Your task to perform on an android device: toggle priority inbox in the gmail app Image 0: 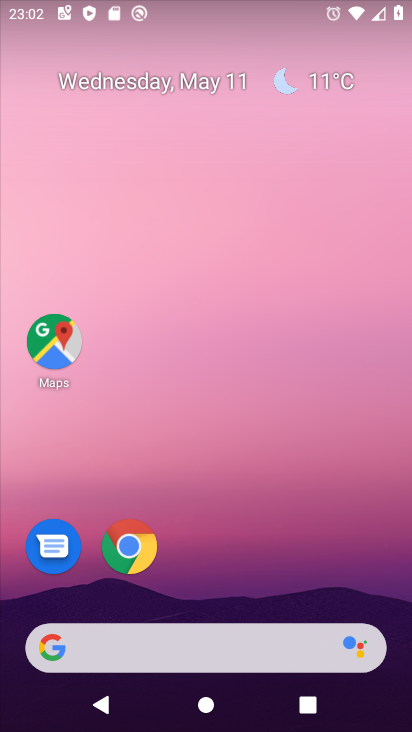
Step 0: drag from (401, 637) to (256, 154)
Your task to perform on an android device: toggle priority inbox in the gmail app Image 1: 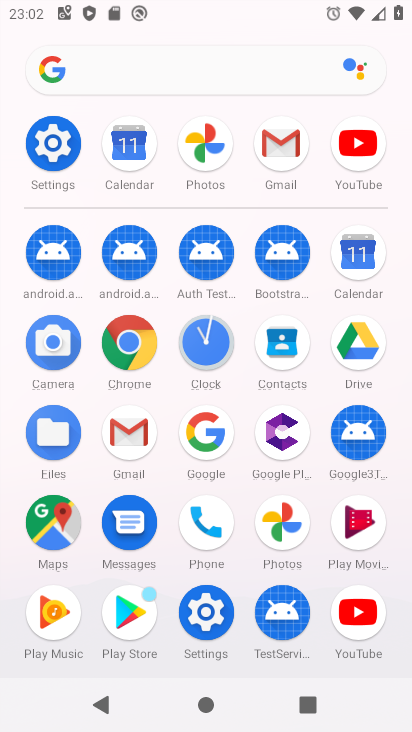
Step 1: click (127, 430)
Your task to perform on an android device: toggle priority inbox in the gmail app Image 2: 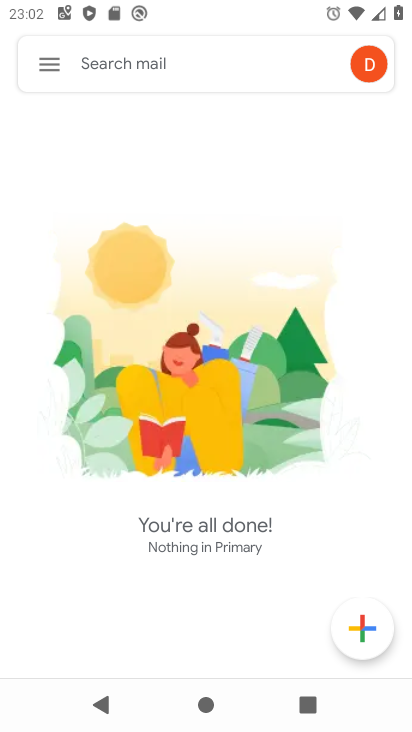
Step 2: click (48, 60)
Your task to perform on an android device: toggle priority inbox in the gmail app Image 3: 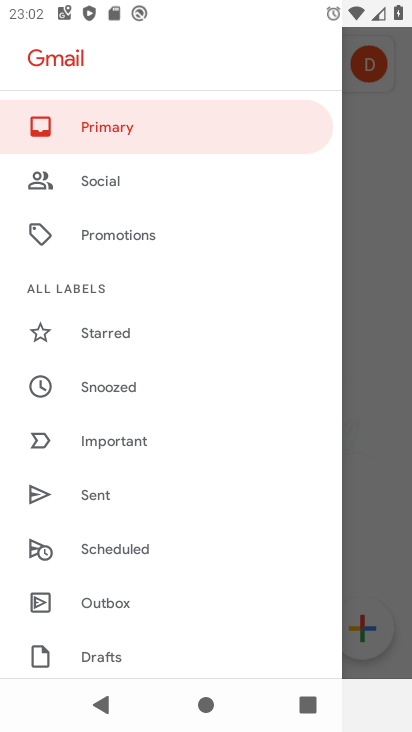
Step 3: drag from (204, 619) to (226, 223)
Your task to perform on an android device: toggle priority inbox in the gmail app Image 4: 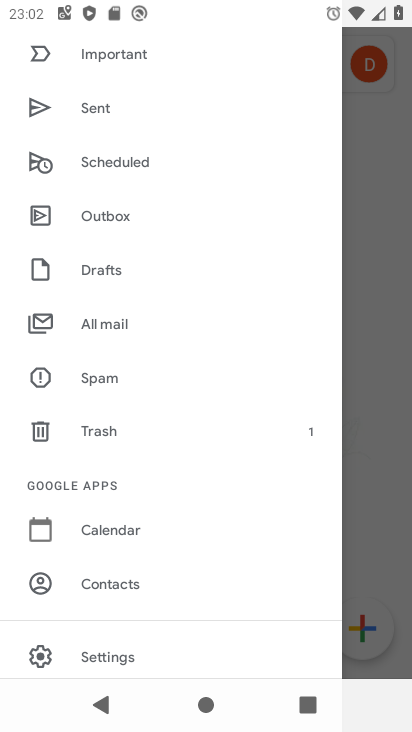
Step 4: click (101, 647)
Your task to perform on an android device: toggle priority inbox in the gmail app Image 5: 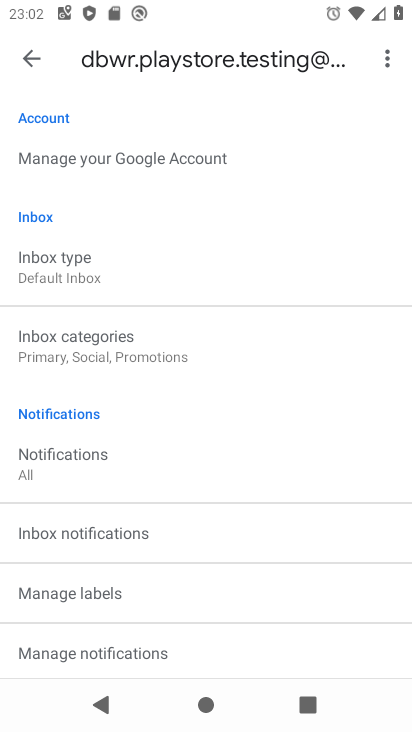
Step 5: click (52, 267)
Your task to perform on an android device: toggle priority inbox in the gmail app Image 6: 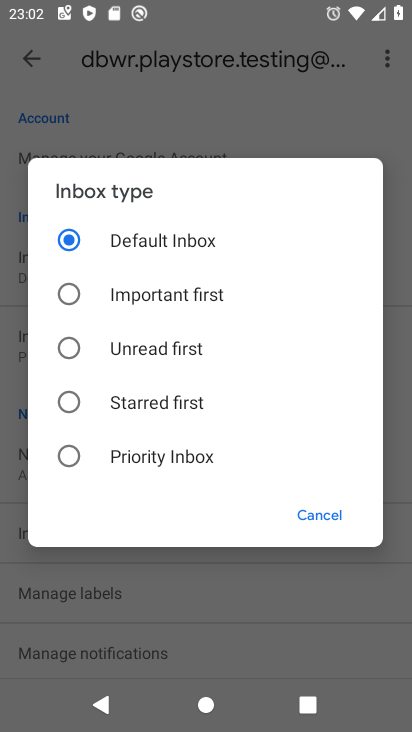
Step 6: click (68, 451)
Your task to perform on an android device: toggle priority inbox in the gmail app Image 7: 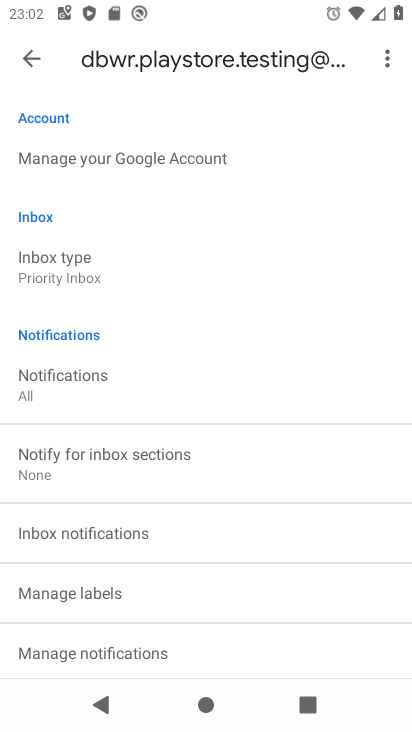
Step 7: task complete